Your task to perform on an android device: Open a new Chrome tab Image 0: 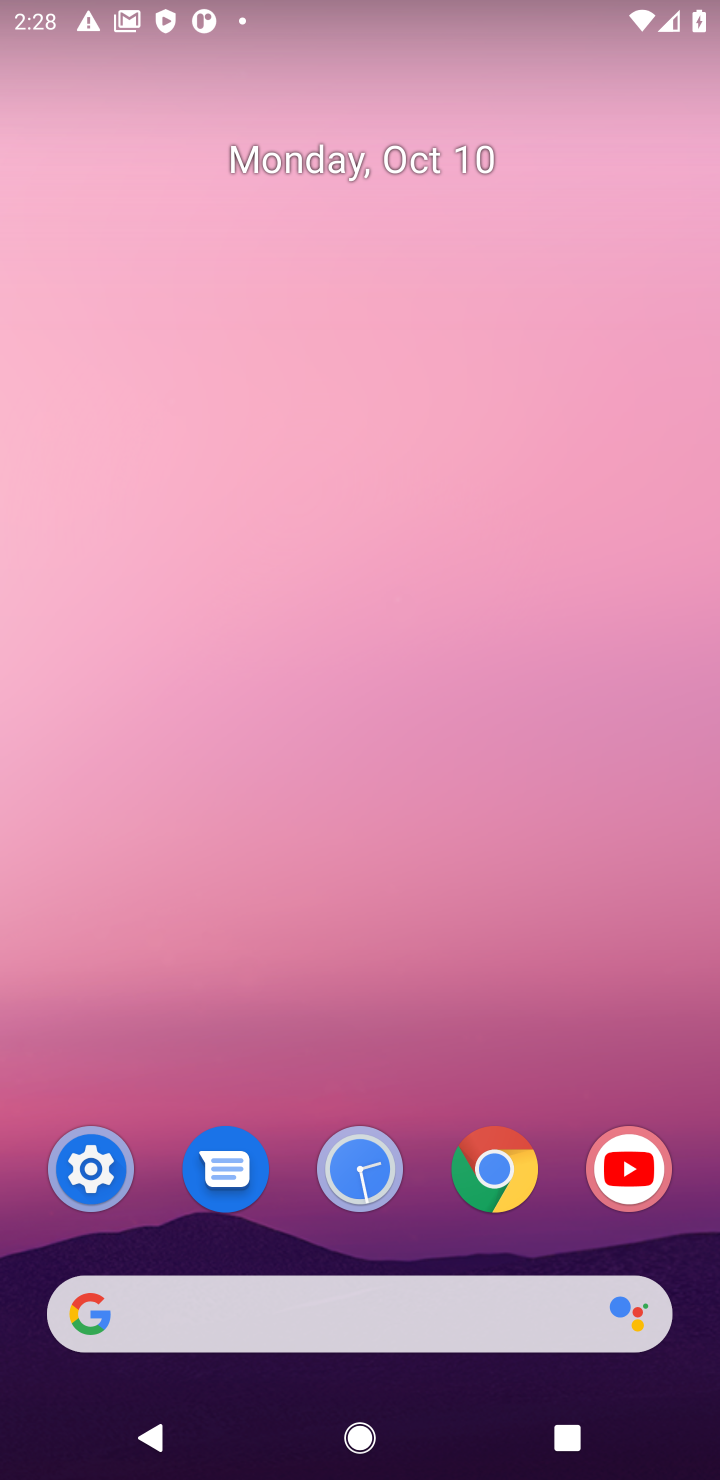
Step 0: drag from (306, 1212) to (378, 84)
Your task to perform on an android device: Open a new Chrome tab Image 1: 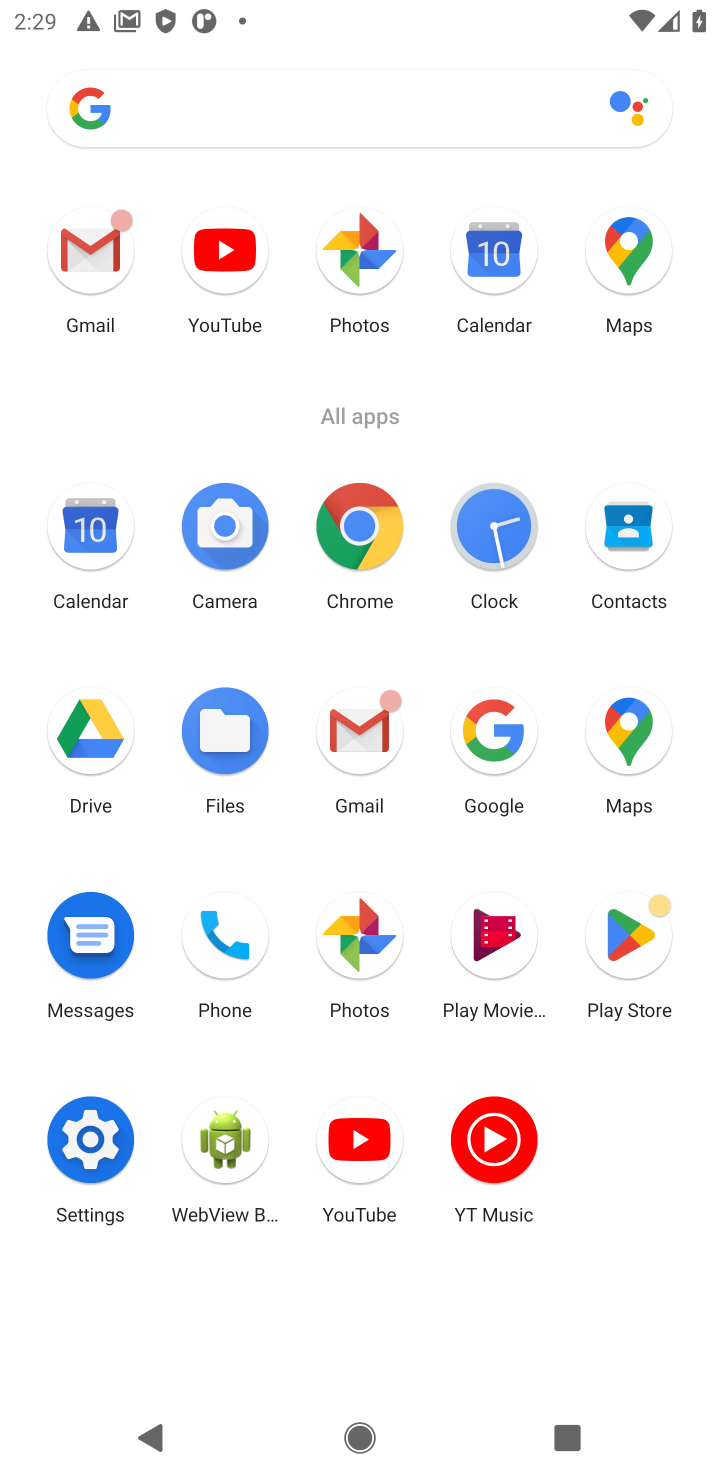
Step 1: click (377, 523)
Your task to perform on an android device: Open a new Chrome tab Image 2: 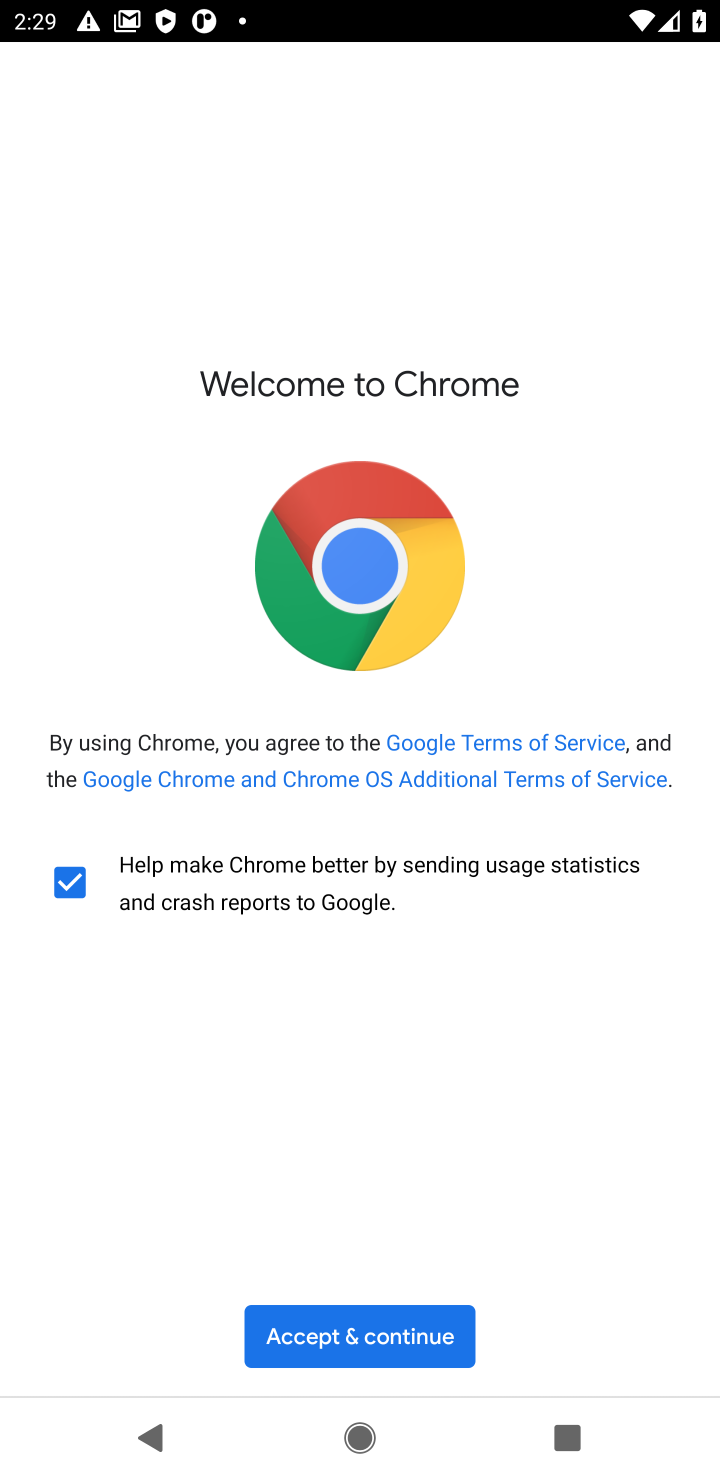
Step 2: click (346, 1358)
Your task to perform on an android device: Open a new Chrome tab Image 3: 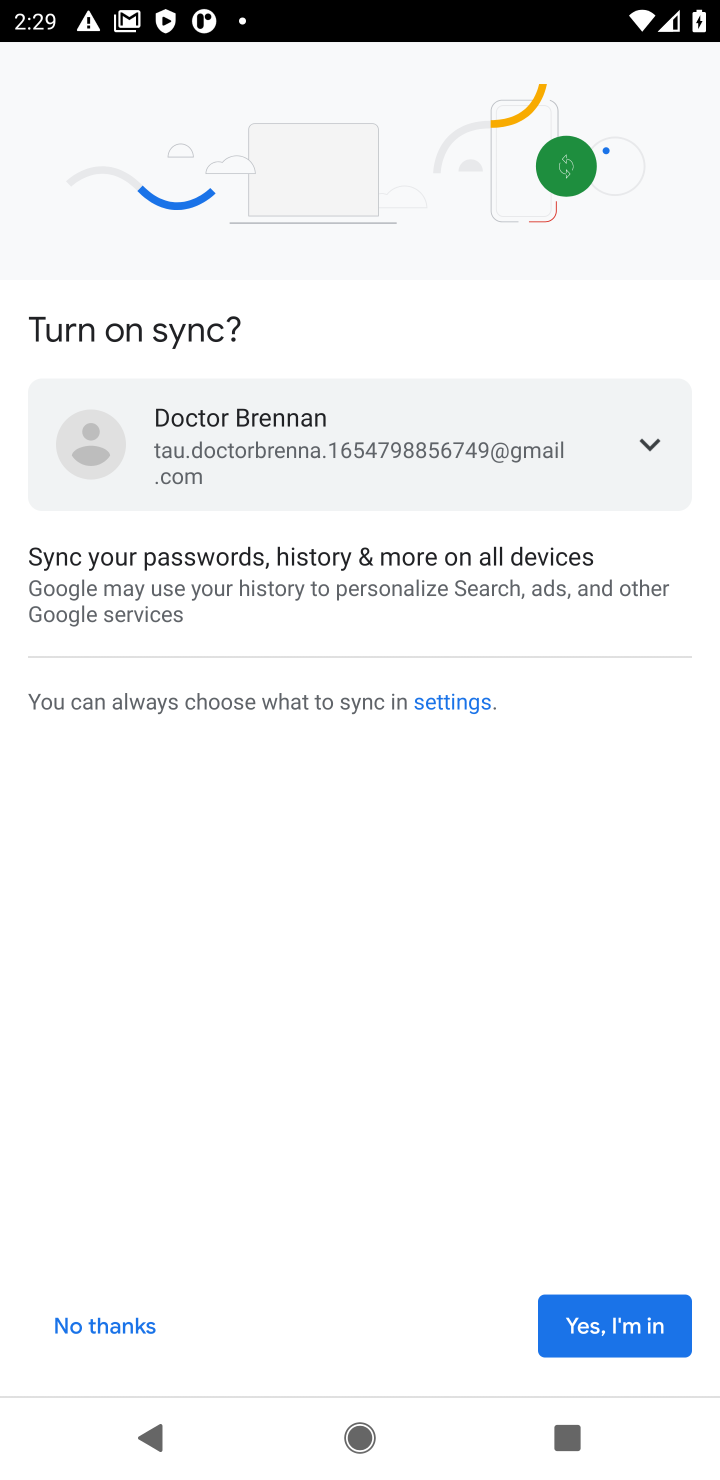
Step 3: click (97, 1305)
Your task to perform on an android device: Open a new Chrome tab Image 4: 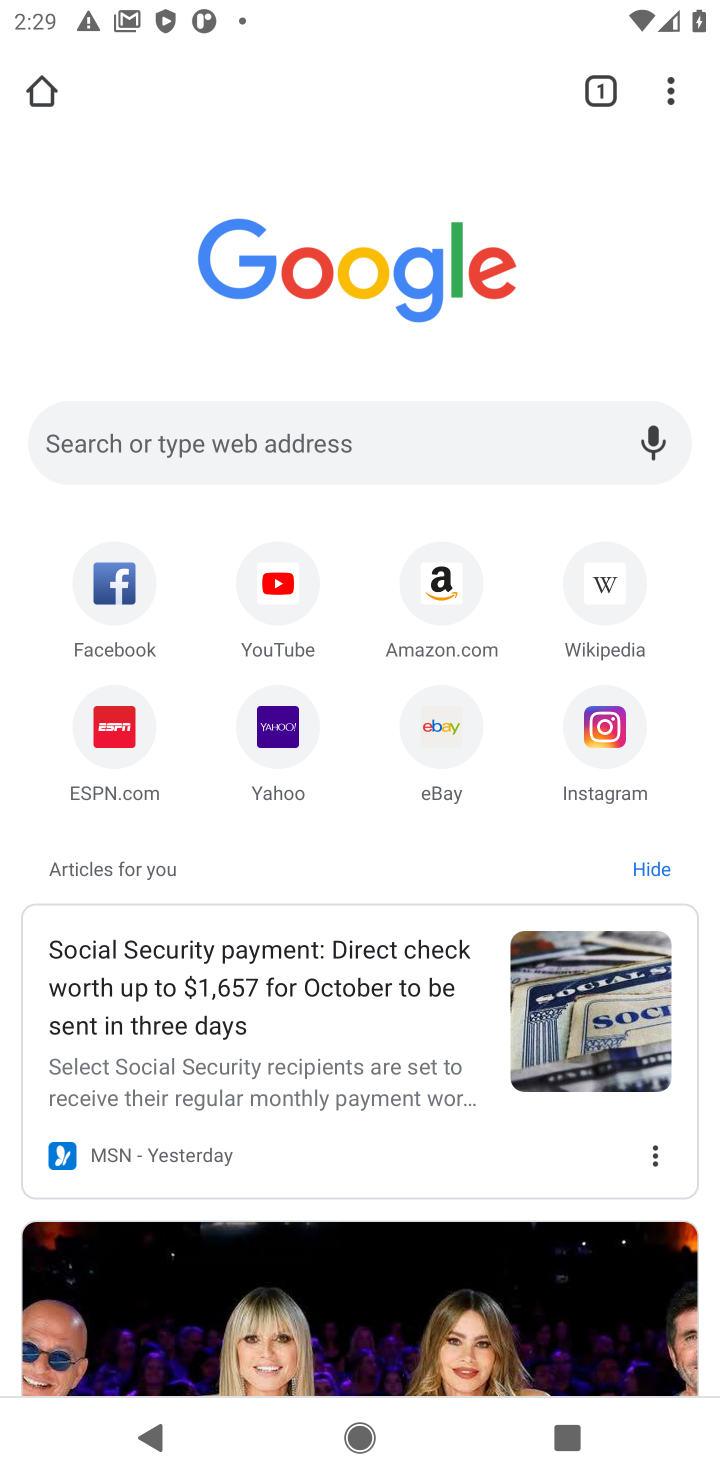
Step 4: click (673, 81)
Your task to perform on an android device: Open a new Chrome tab Image 5: 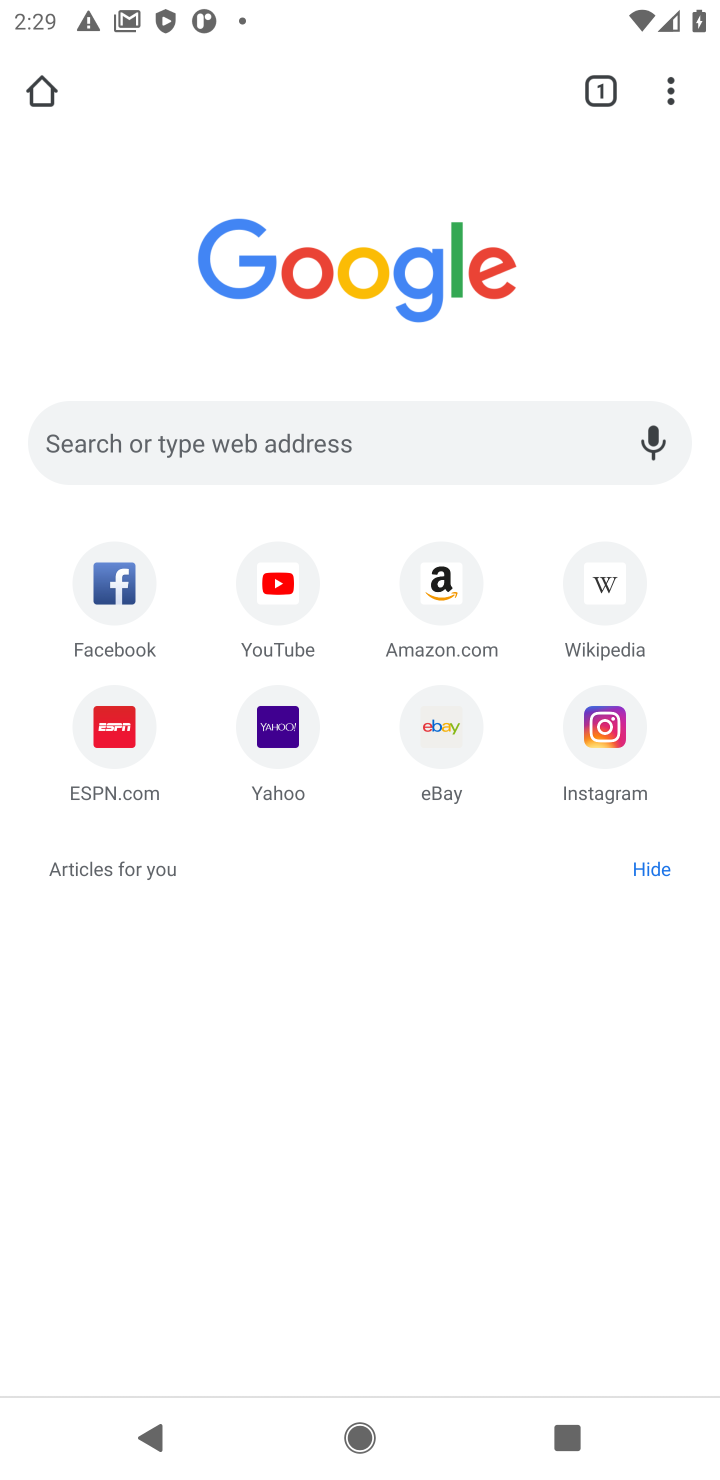
Step 5: click (417, 173)
Your task to perform on an android device: Open a new Chrome tab Image 6: 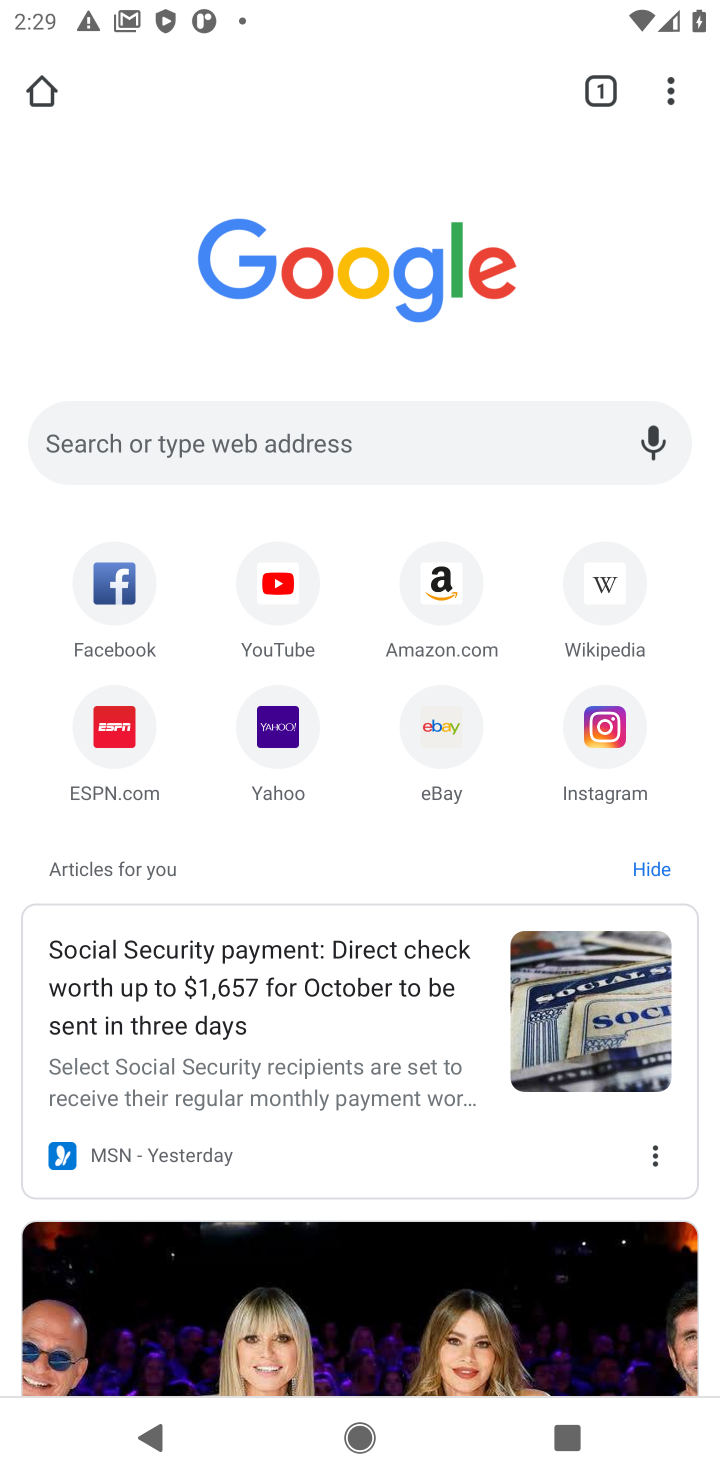
Step 6: click (685, 90)
Your task to perform on an android device: Open a new Chrome tab Image 7: 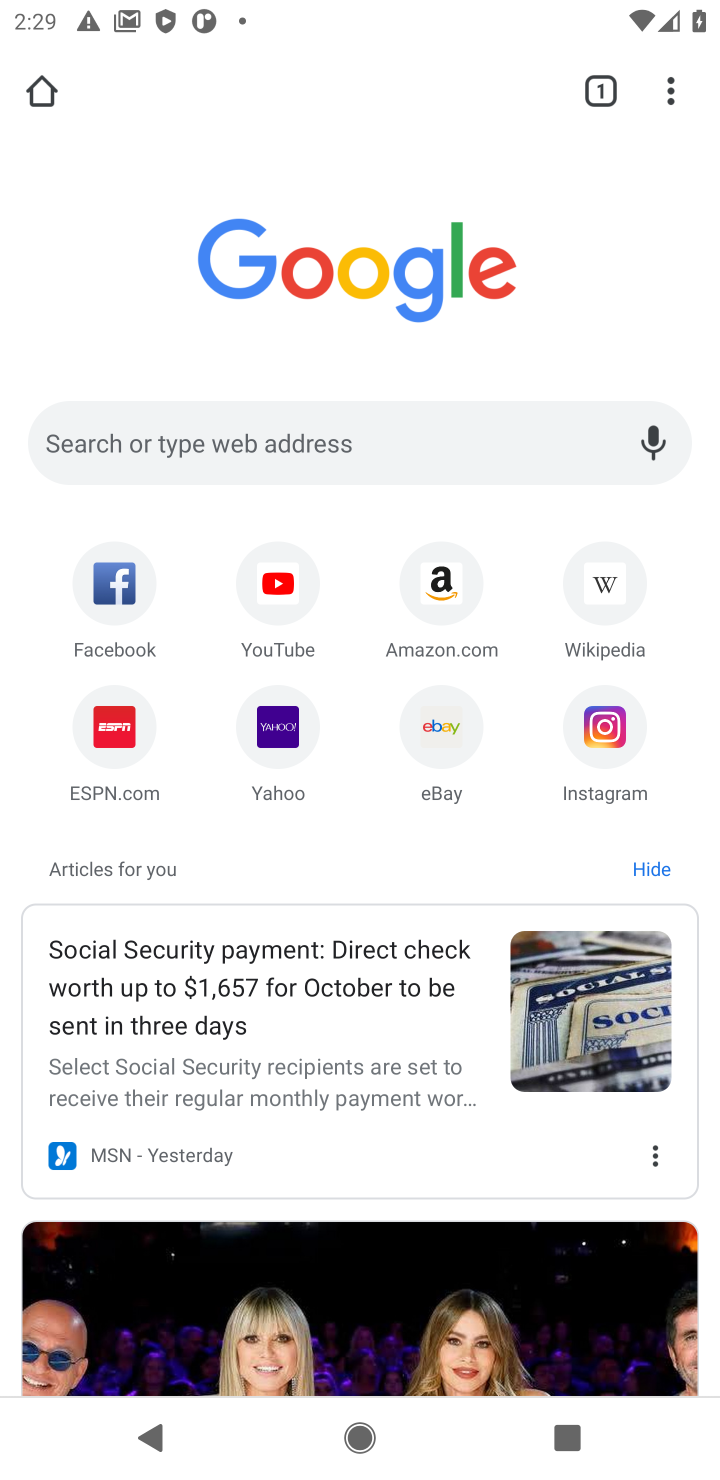
Step 7: click (663, 95)
Your task to perform on an android device: Open a new Chrome tab Image 8: 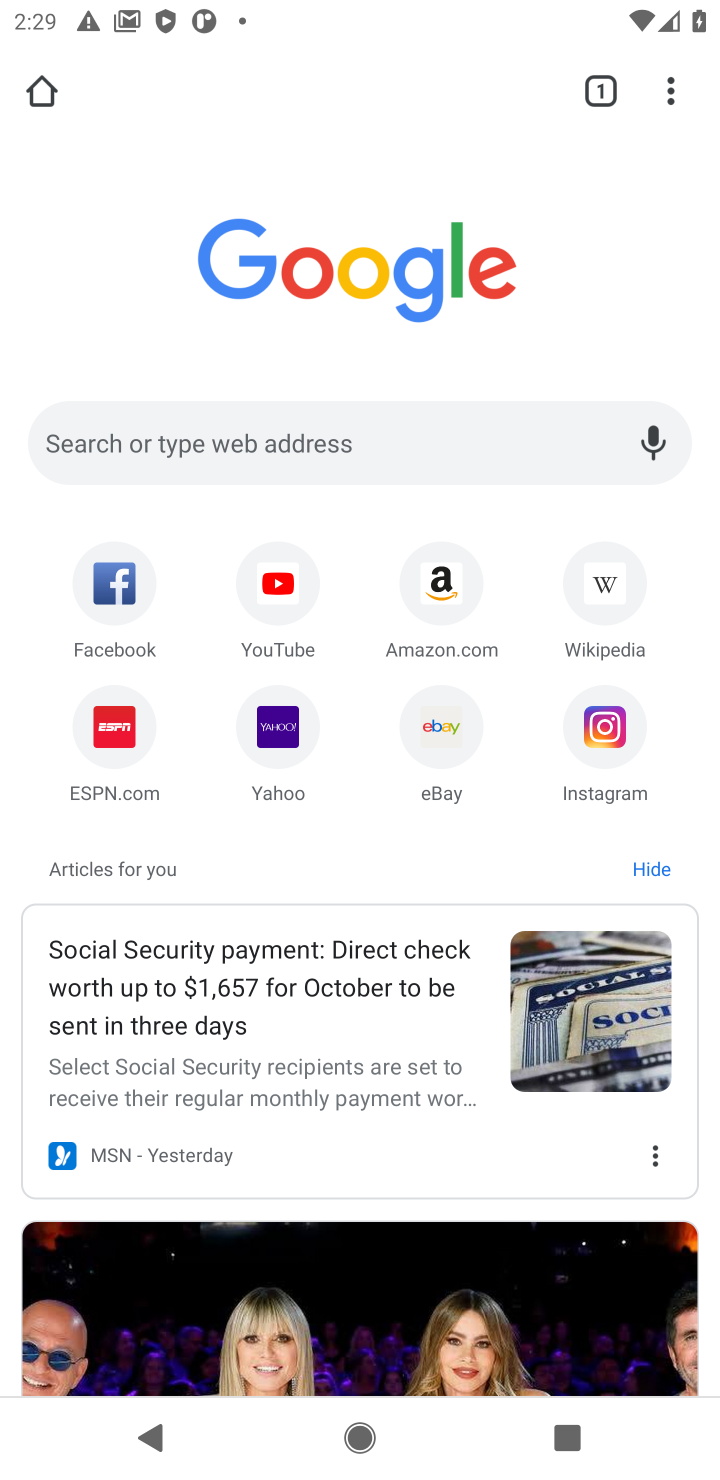
Step 8: task complete